Your task to perform on an android device: Set the phone to "Do not disturb". Image 0: 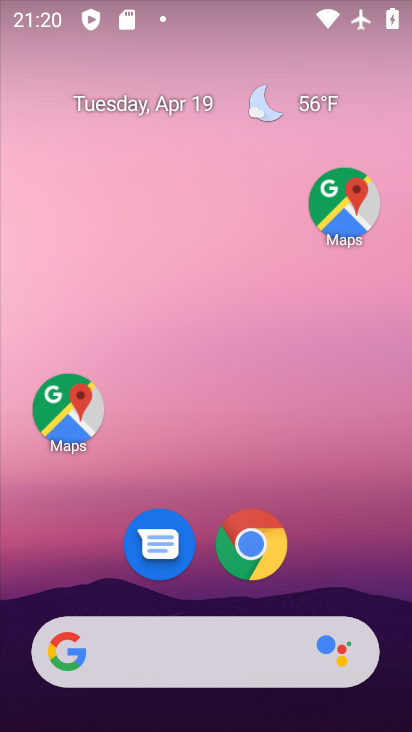
Step 0: drag from (193, 637) to (343, 54)
Your task to perform on an android device: Set the phone to "Do not disturb". Image 1: 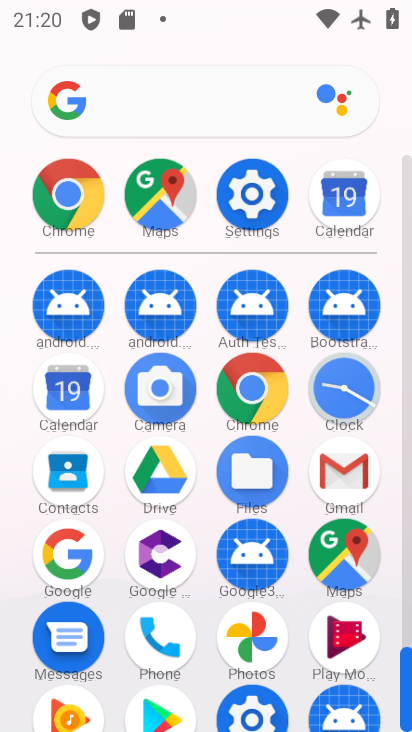
Step 1: click (256, 196)
Your task to perform on an android device: Set the phone to "Do not disturb". Image 2: 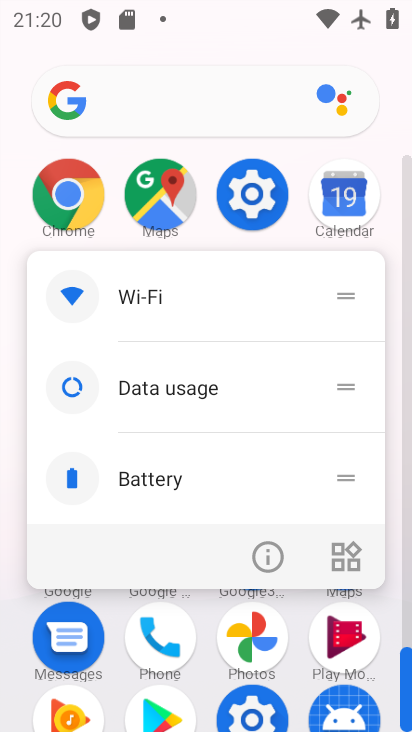
Step 2: click (245, 200)
Your task to perform on an android device: Set the phone to "Do not disturb". Image 3: 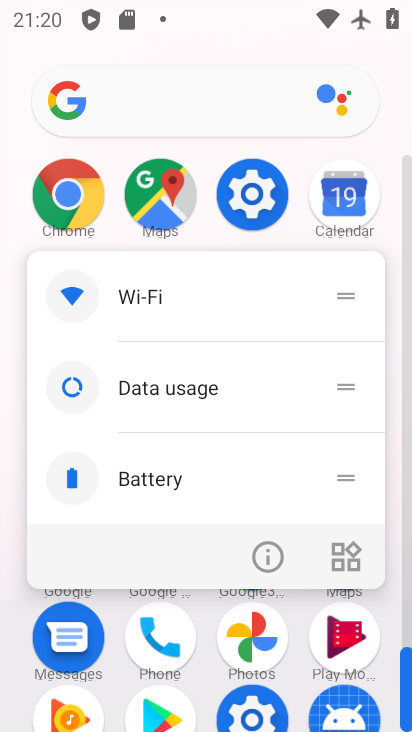
Step 3: click (252, 203)
Your task to perform on an android device: Set the phone to "Do not disturb". Image 4: 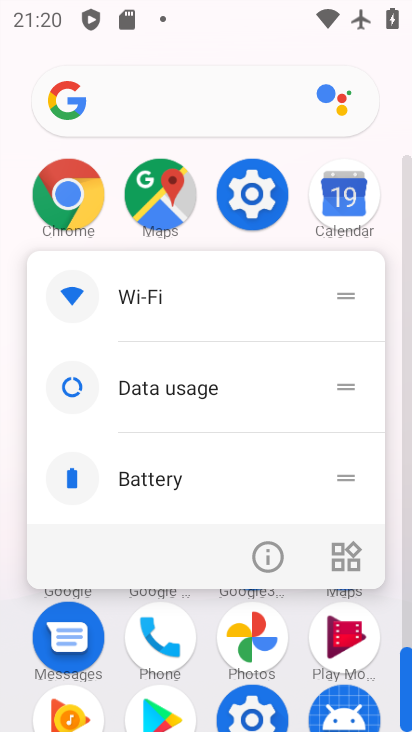
Step 4: click (253, 205)
Your task to perform on an android device: Set the phone to "Do not disturb". Image 5: 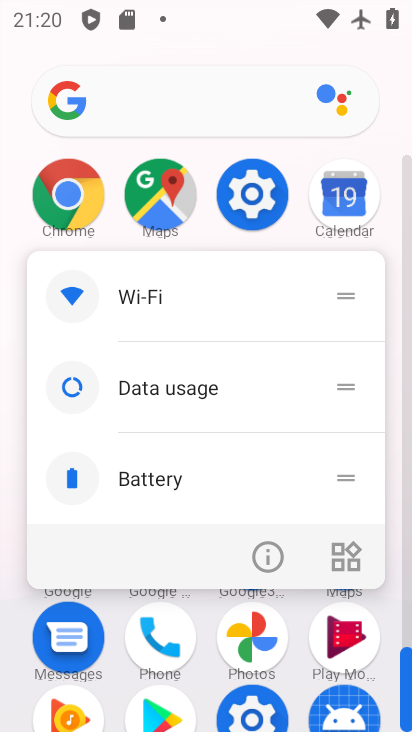
Step 5: click (253, 206)
Your task to perform on an android device: Set the phone to "Do not disturb". Image 6: 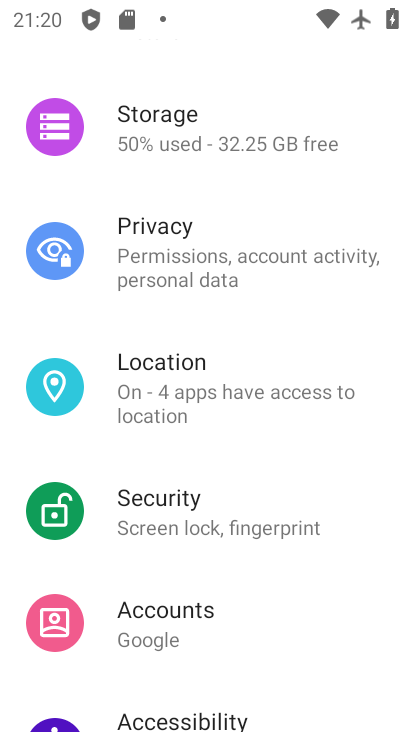
Step 6: drag from (208, 592) to (322, 69)
Your task to perform on an android device: Set the phone to "Do not disturb". Image 7: 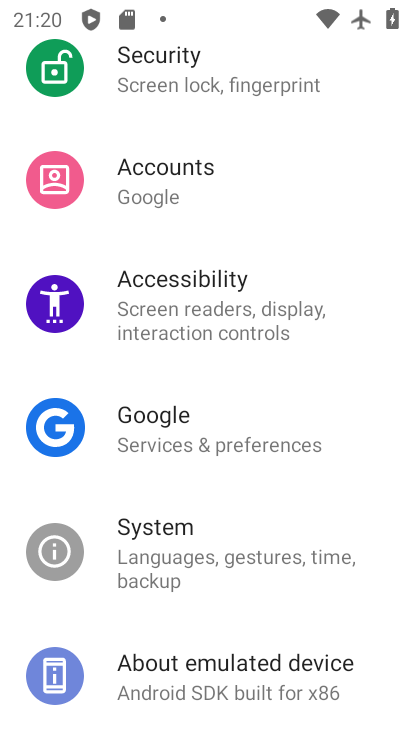
Step 7: drag from (285, 143) to (241, 610)
Your task to perform on an android device: Set the phone to "Do not disturb". Image 8: 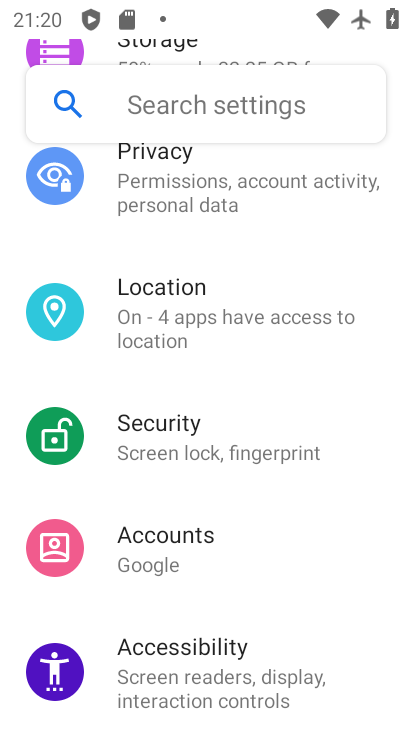
Step 8: drag from (278, 248) to (268, 616)
Your task to perform on an android device: Set the phone to "Do not disturb". Image 9: 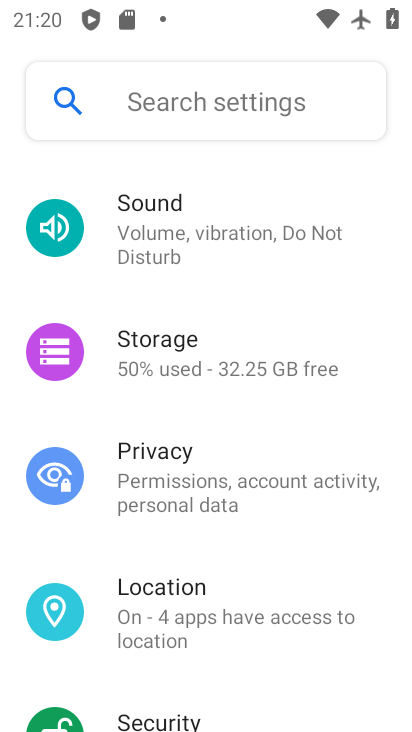
Step 9: click (216, 237)
Your task to perform on an android device: Set the phone to "Do not disturb". Image 10: 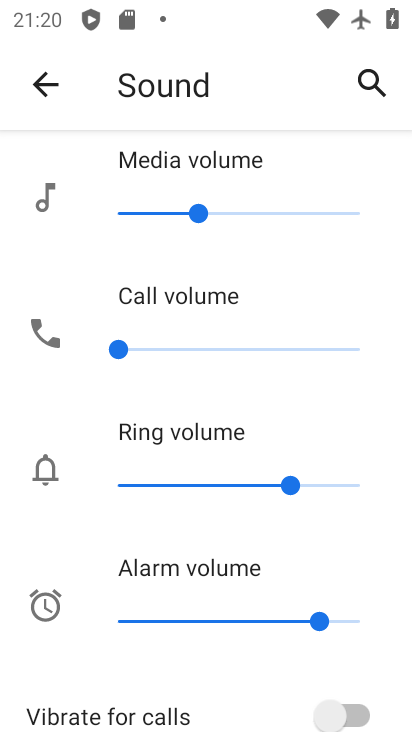
Step 10: drag from (162, 654) to (346, 130)
Your task to perform on an android device: Set the phone to "Do not disturb". Image 11: 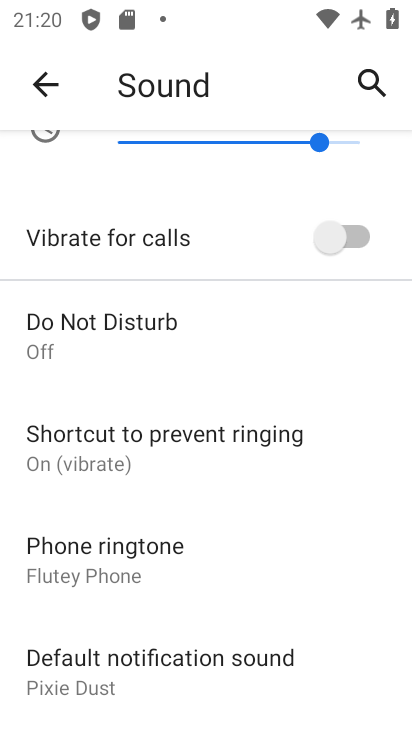
Step 11: click (133, 328)
Your task to perform on an android device: Set the phone to "Do not disturb". Image 12: 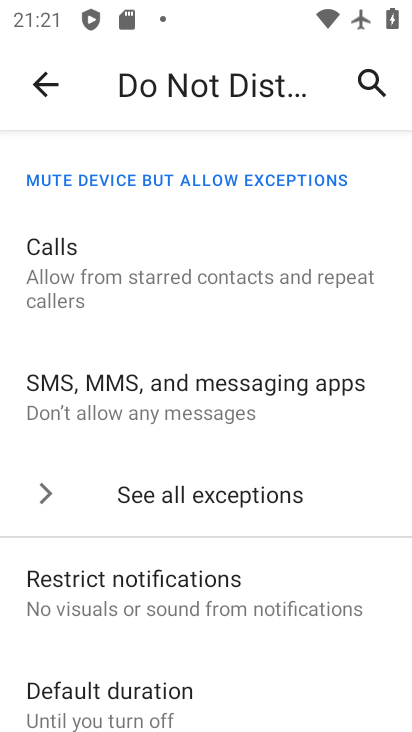
Step 12: drag from (191, 595) to (389, 66)
Your task to perform on an android device: Set the phone to "Do not disturb". Image 13: 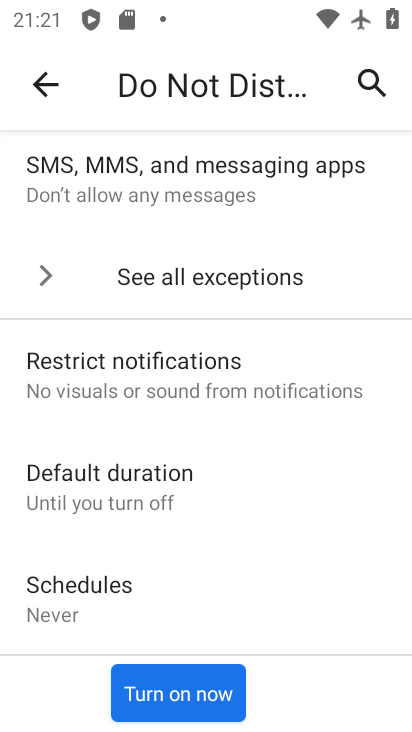
Step 13: click (190, 692)
Your task to perform on an android device: Set the phone to "Do not disturb". Image 14: 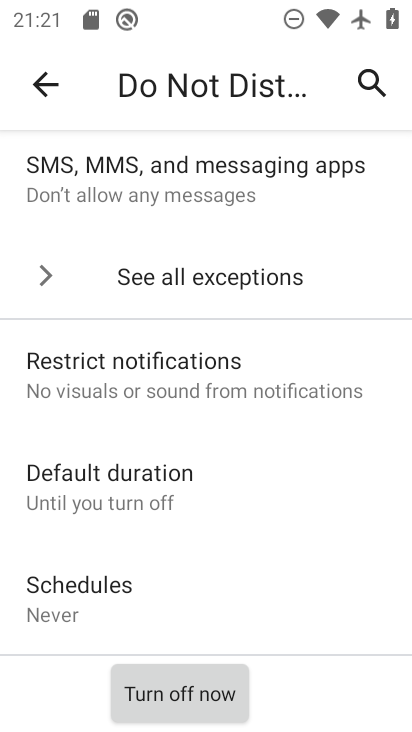
Step 14: task complete